Your task to perform on an android device: Show me productivity apps on the Play Store Image 0: 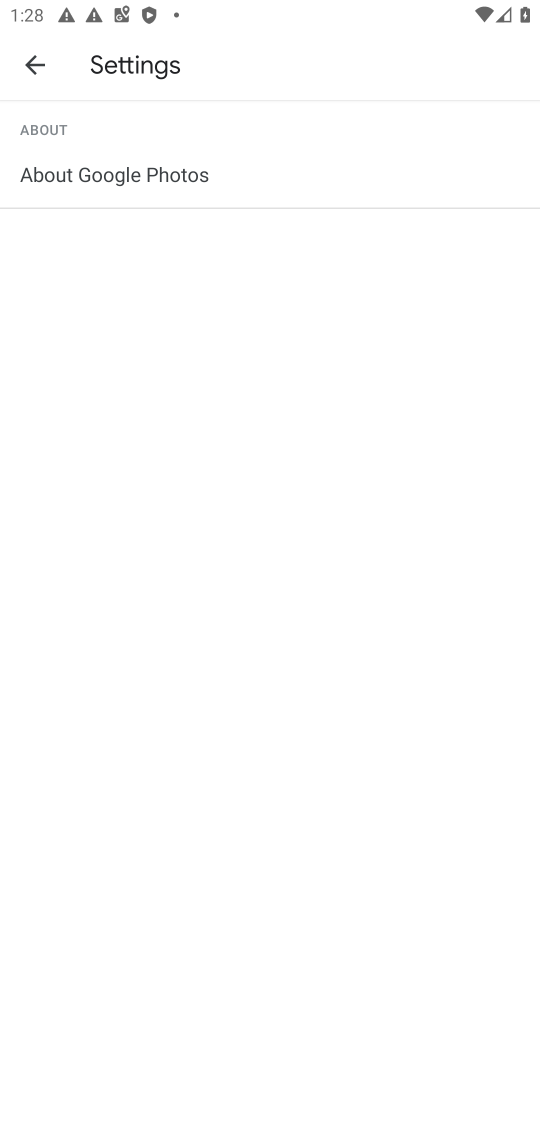
Step 0: press home button
Your task to perform on an android device: Show me productivity apps on the Play Store Image 1: 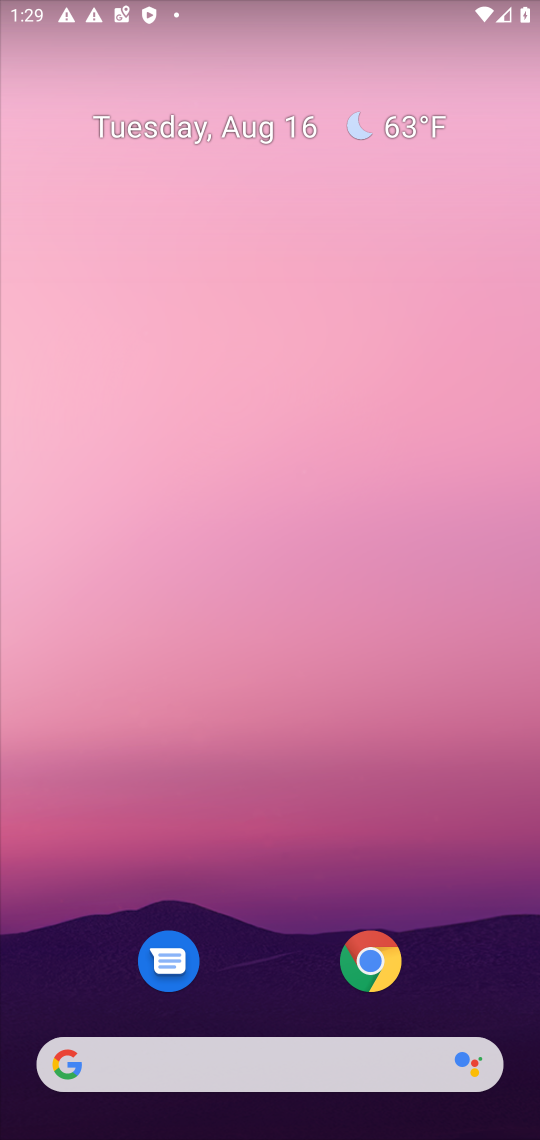
Step 1: drag from (522, 957) to (300, 3)
Your task to perform on an android device: Show me productivity apps on the Play Store Image 2: 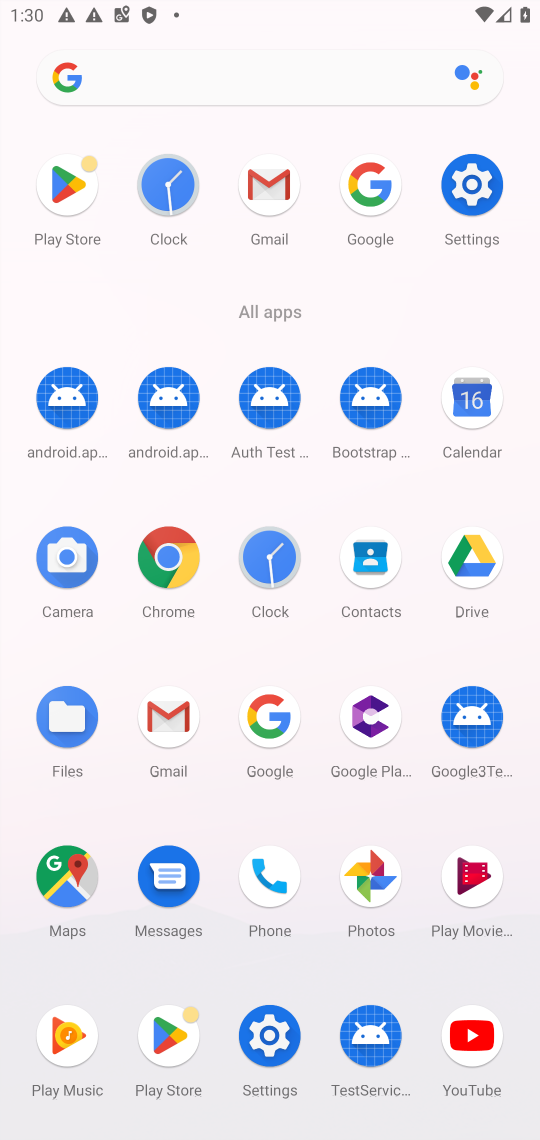
Step 2: click (63, 193)
Your task to perform on an android device: Show me productivity apps on the Play Store Image 3: 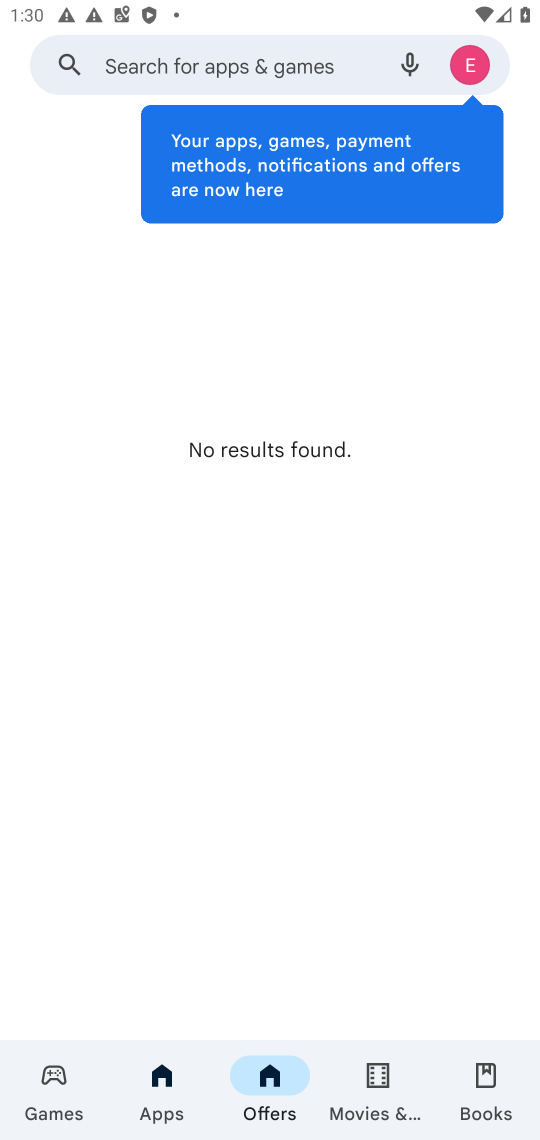
Step 3: task complete